Your task to perform on an android device: add a label to a message in the gmail app Image 0: 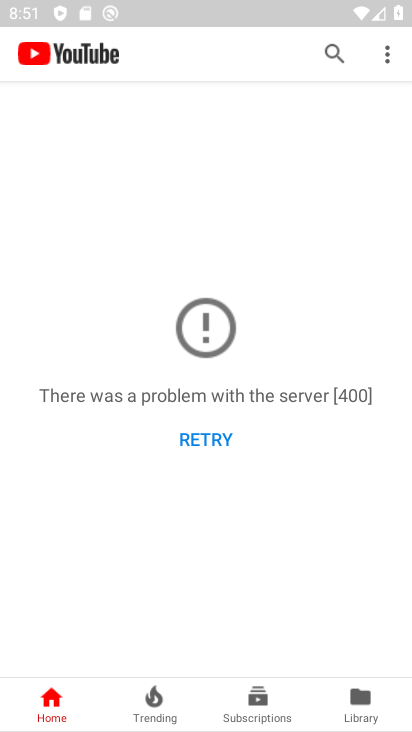
Step 0: press home button
Your task to perform on an android device: add a label to a message in the gmail app Image 1: 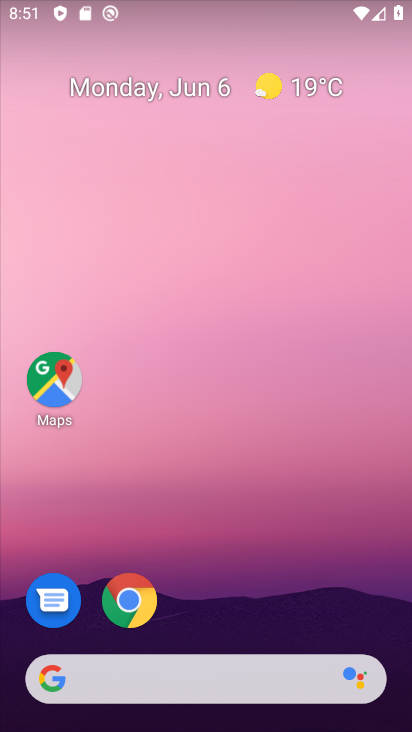
Step 1: drag from (249, 544) to (96, 21)
Your task to perform on an android device: add a label to a message in the gmail app Image 2: 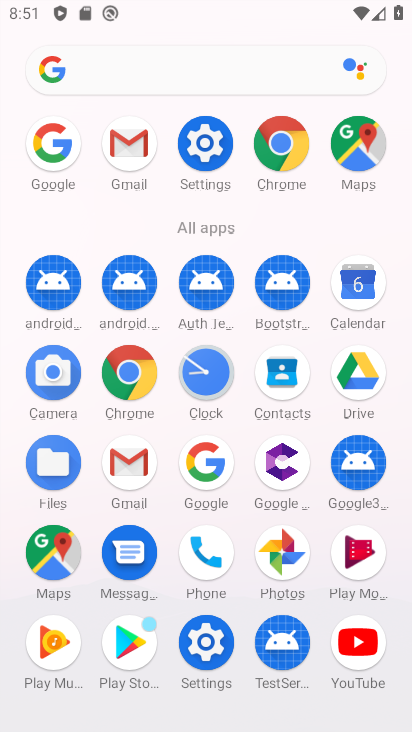
Step 2: click (132, 450)
Your task to perform on an android device: add a label to a message in the gmail app Image 3: 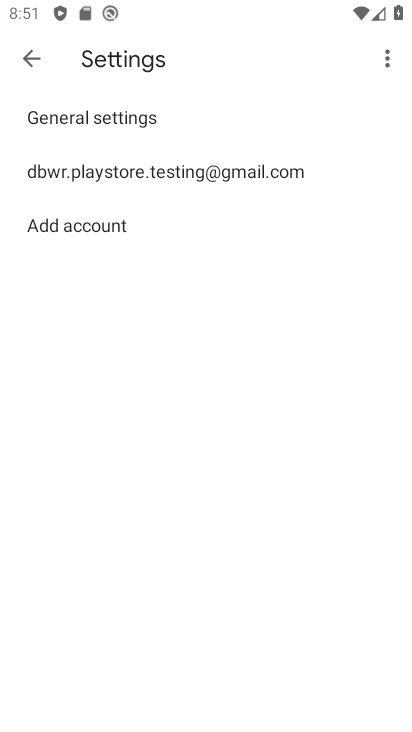
Step 3: click (34, 67)
Your task to perform on an android device: add a label to a message in the gmail app Image 4: 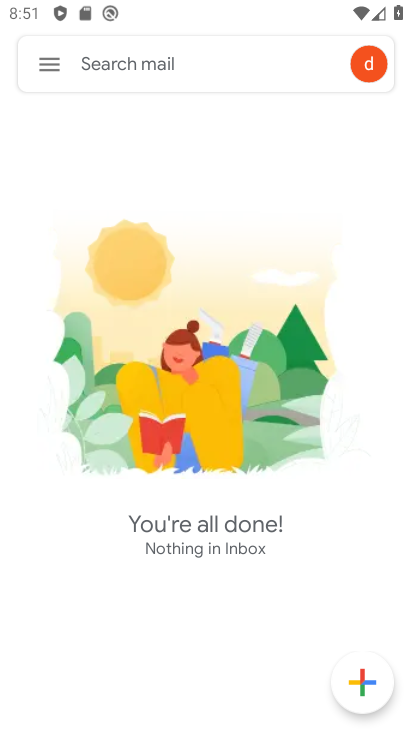
Step 4: click (53, 70)
Your task to perform on an android device: add a label to a message in the gmail app Image 5: 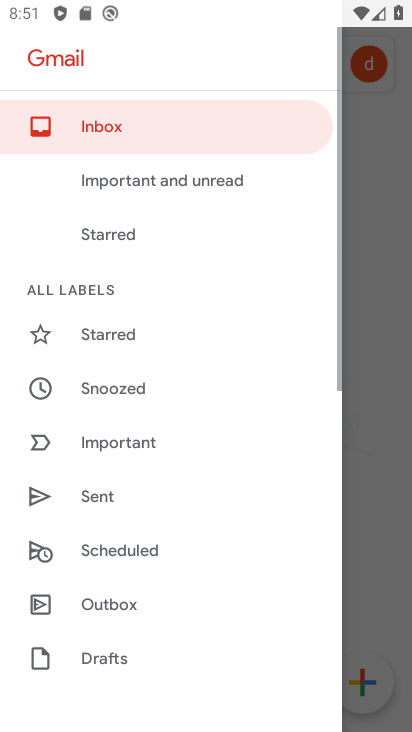
Step 5: click (136, 136)
Your task to perform on an android device: add a label to a message in the gmail app Image 6: 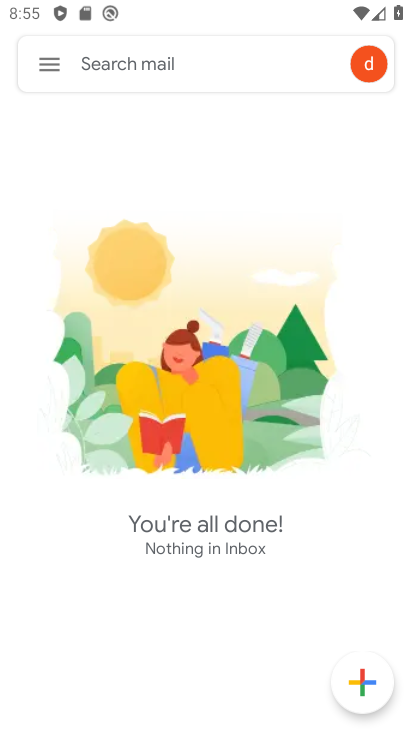
Step 6: task complete